Your task to perform on an android device: turn on javascript in the chrome app Image 0: 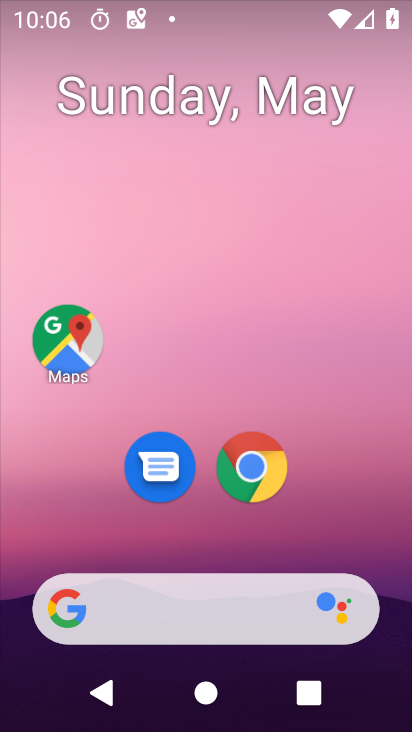
Step 0: click (238, 461)
Your task to perform on an android device: turn on javascript in the chrome app Image 1: 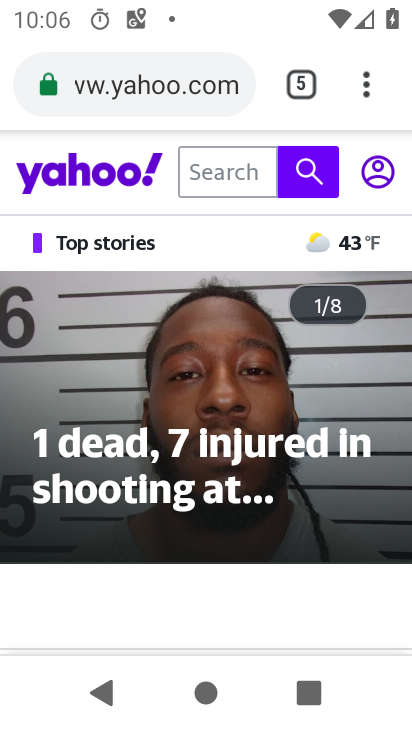
Step 1: drag from (365, 72) to (148, 525)
Your task to perform on an android device: turn on javascript in the chrome app Image 2: 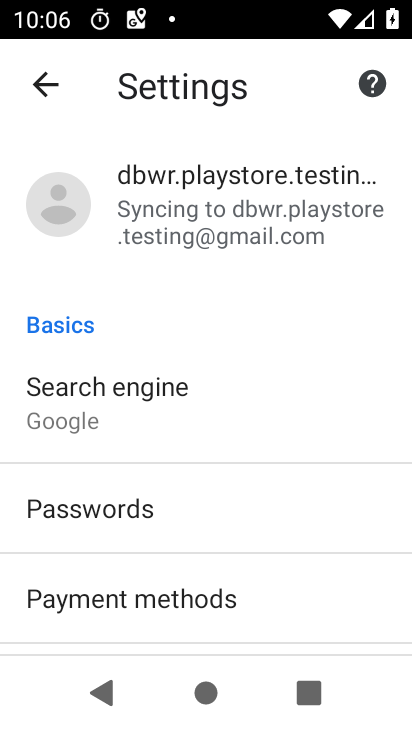
Step 2: drag from (178, 585) to (194, 249)
Your task to perform on an android device: turn on javascript in the chrome app Image 3: 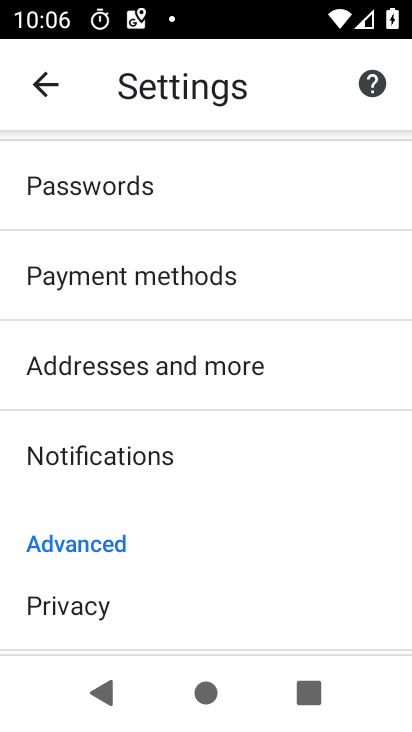
Step 3: drag from (185, 508) to (229, 256)
Your task to perform on an android device: turn on javascript in the chrome app Image 4: 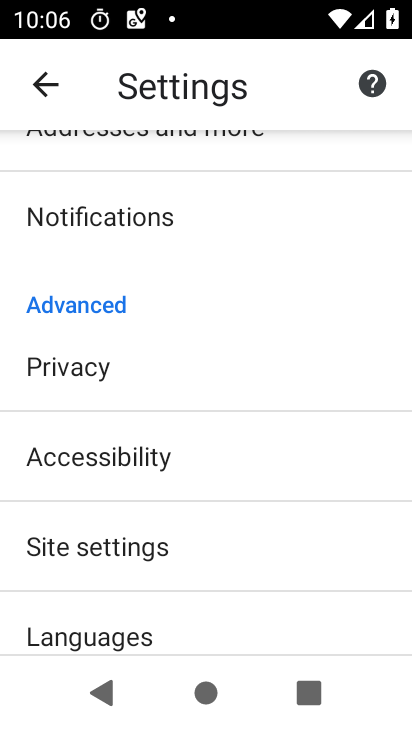
Step 4: drag from (221, 578) to (235, 348)
Your task to perform on an android device: turn on javascript in the chrome app Image 5: 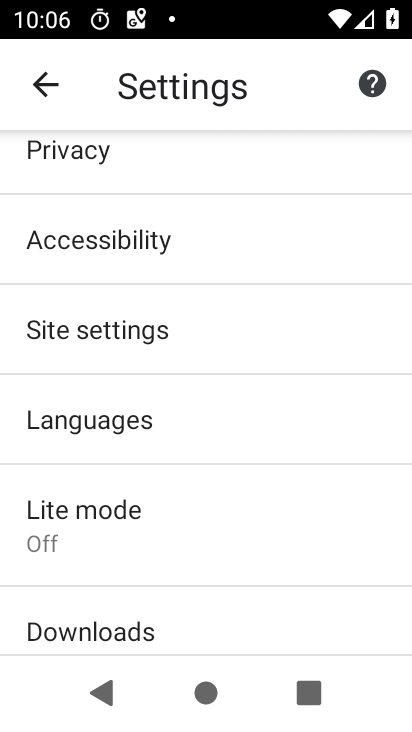
Step 5: drag from (265, 561) to (278, 380)
Your task to perform on an android device: turn on javascript in the chrome app Image 6: 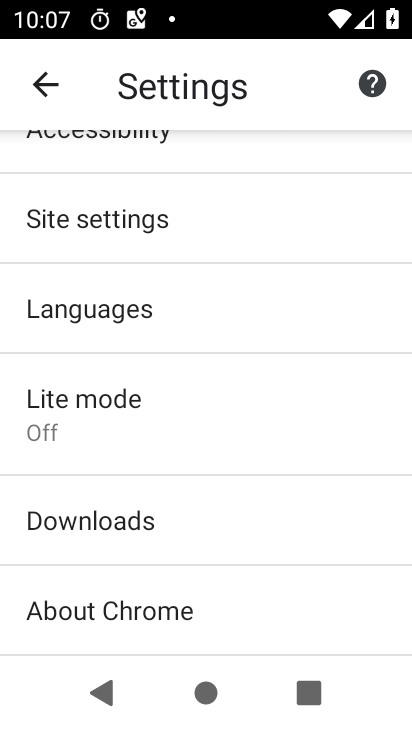
Step 6: drag from (229, 305) to (215, 469)
Your task to perform on an android device: turn on javascript in the chrome app Image 7: 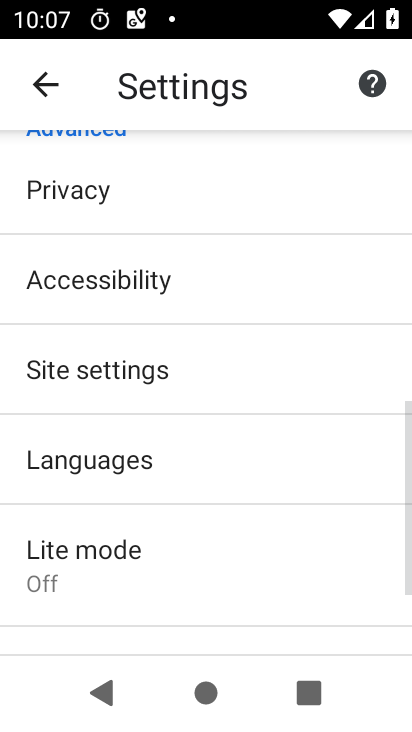
Step 7: click (147, 364)
Your task to perform on an android device: turn on javascript in the chrome app Image 8: 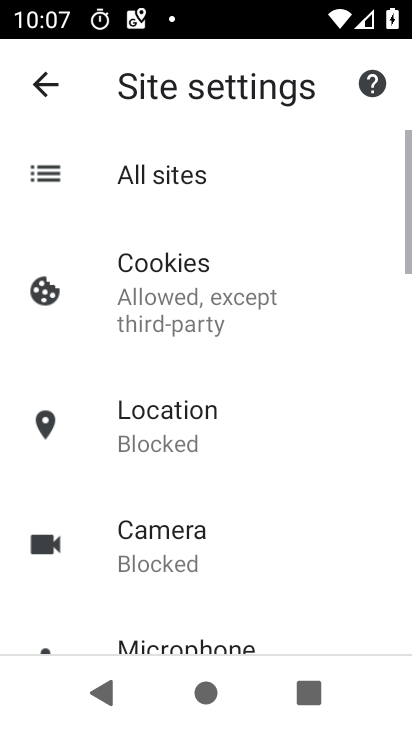
Step 8: drag from (223, 549) to (261, 259)
Your task to perform on an android device: turn on javascript in the chrome app Image 9: 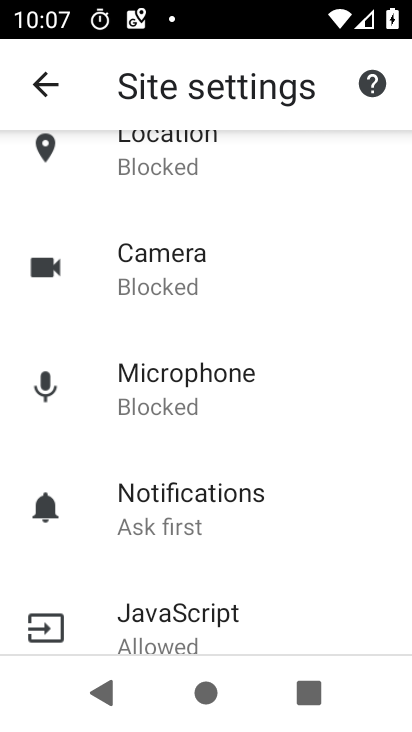
Step 9: click (188, 600)
Your task to perform on an android device: turn on javascript in the chrome app Image 10: 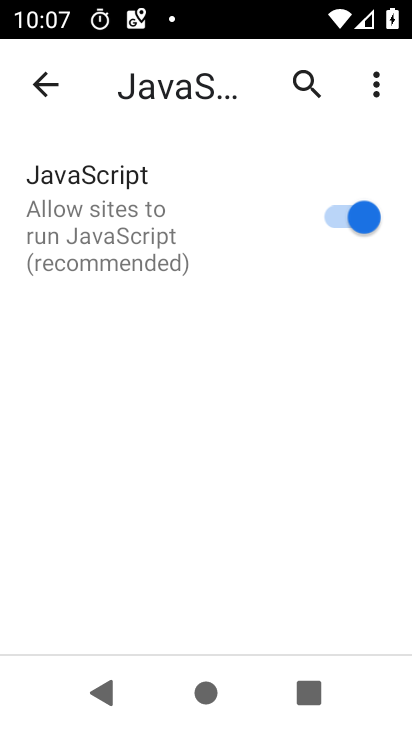
Step 10: task complete